Your task to perform on an android device: How big is the moon? Image 0: 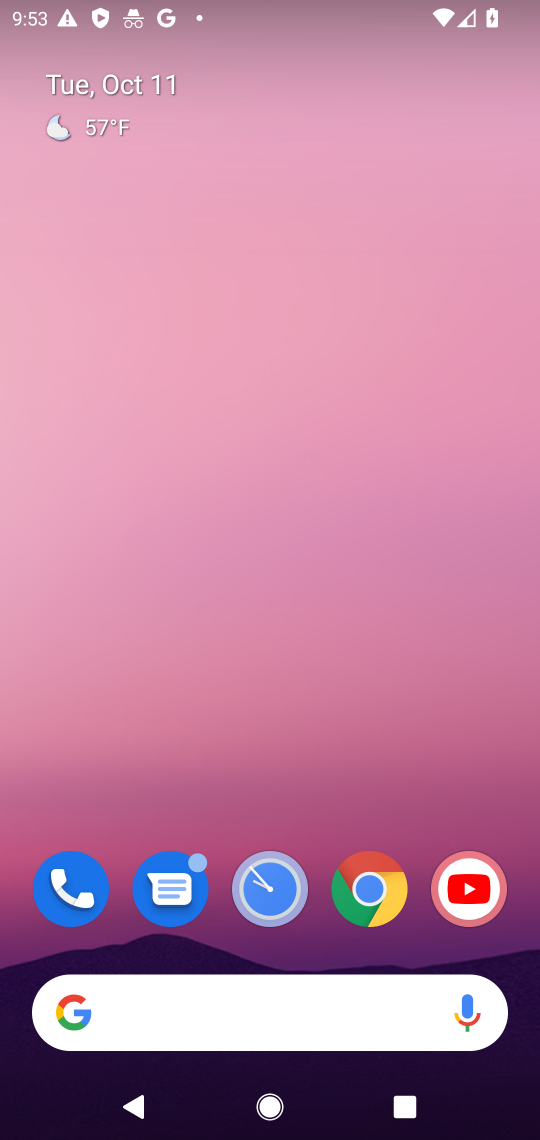
Step 0: click (231, 1014)
Your task to perform on an android device: How big is the moon? Image 1: 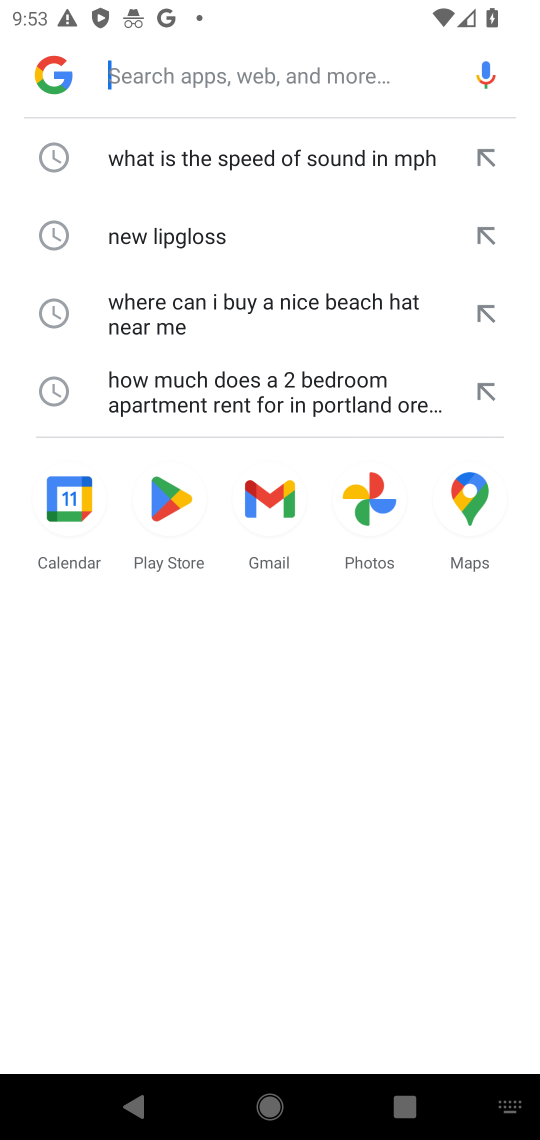
Step 1: click (158, 74)
Your task to perform on an android device: How big is the moon? Image 2: 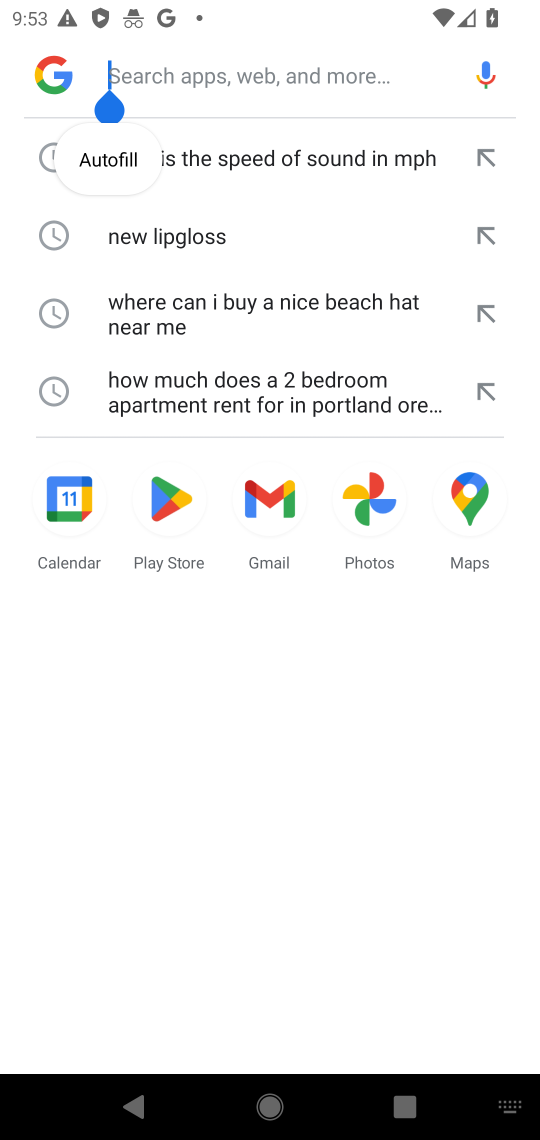
Step 2: type "How big is the moon?"
Your task to perform on an android device: How big is the moon? Image 3: 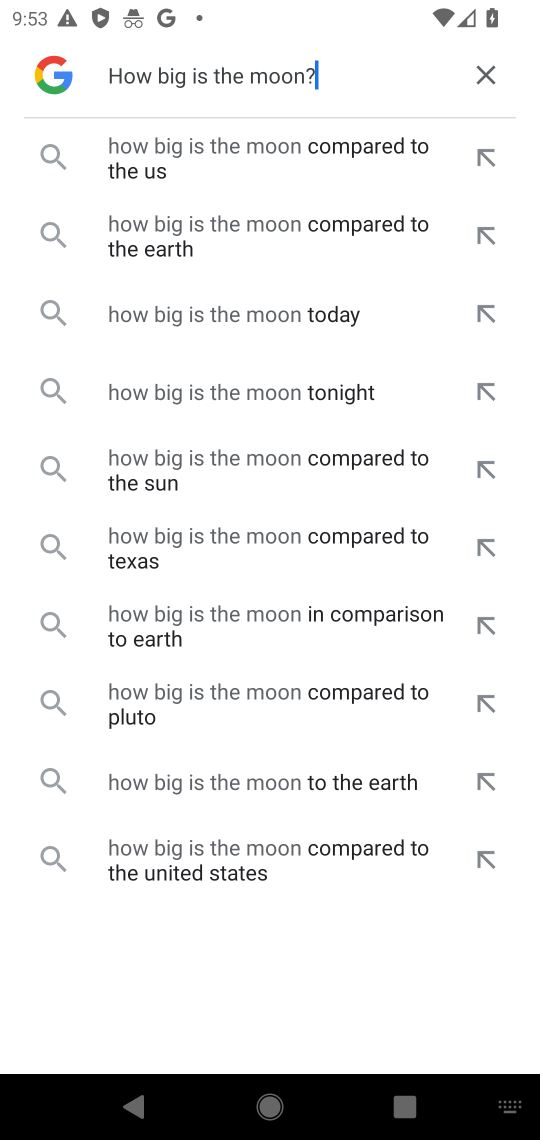
Step 3: click (153, 309)
Your task to perform on an android device: How big is the moon? Image 4: 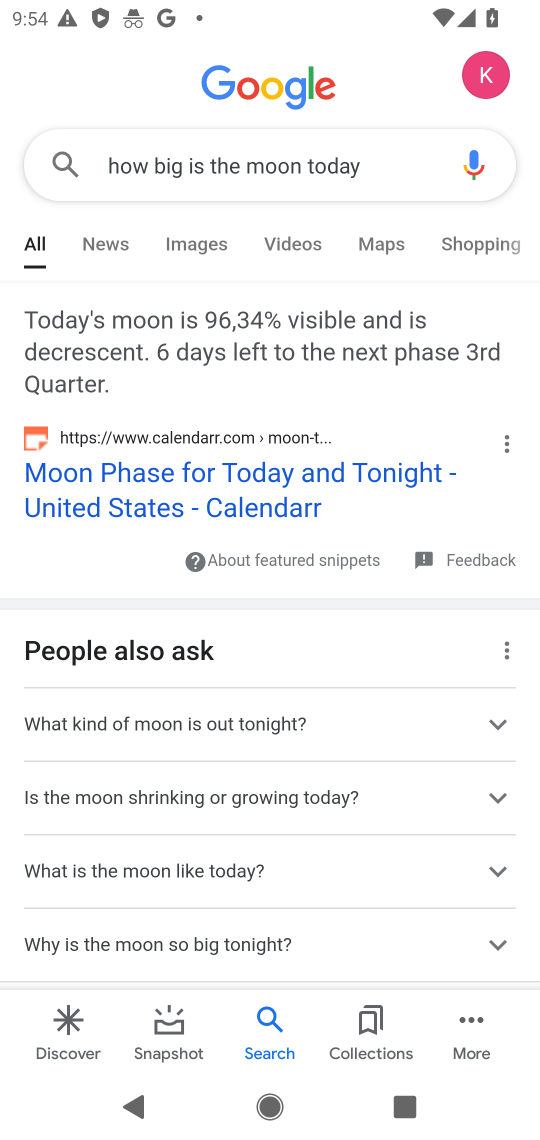
Step 4: task complete